Your task to perform on an android device: toggle airplane mode Image 0: 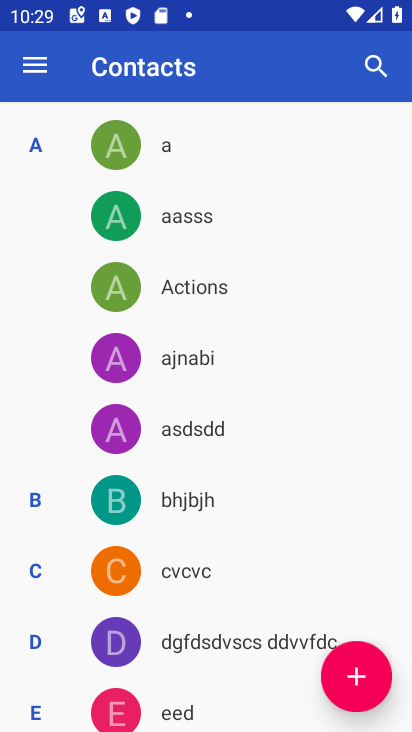
Step 0: press home button
Your task to perform on an android device: toggle airplane mode Image 1: 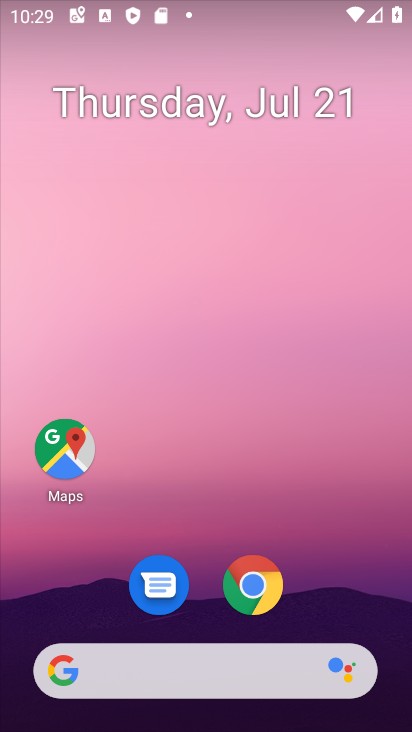
Step 1: drag from (253, 503) to (329, 9)
Your task to perform on an android device: toggle airplane mode Image 2: 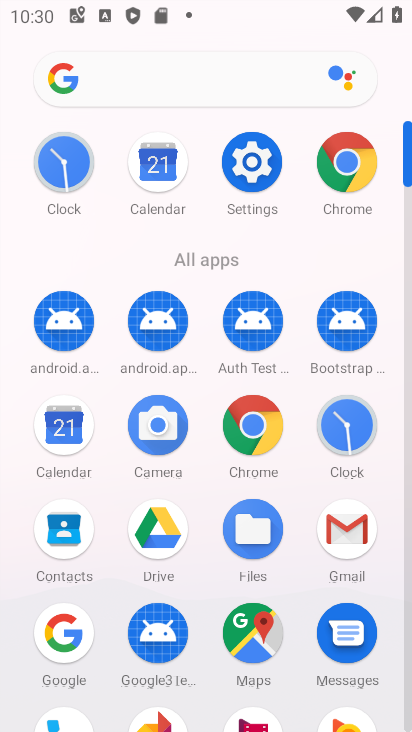
Step 2: click (248, 162)
Your task to perform on an android device: toggle airplane mode Image 3: 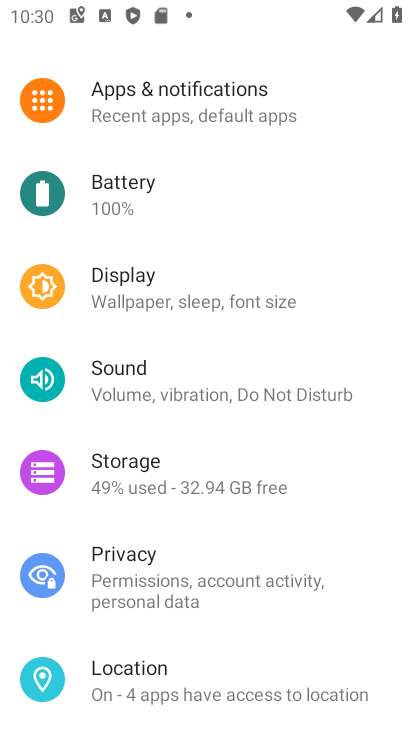
Step 3: drag from (235, 204) to (226, 652)
Your task to perform on an android device: toggle airplane mode Image 4: 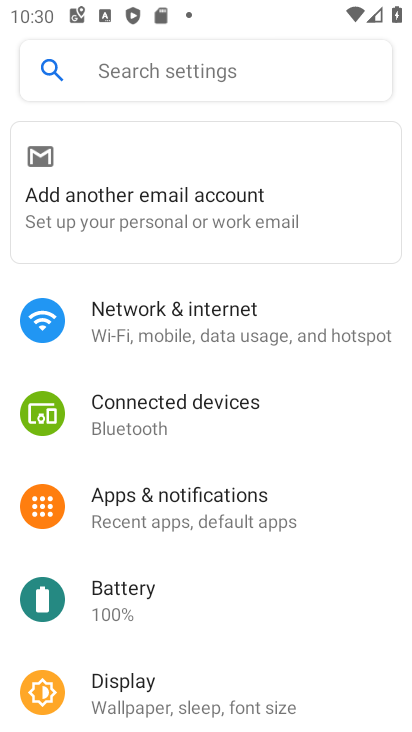
Step 4: click (246, 335)
Your task to perform on an android device: toggle airplane mode Image 5: 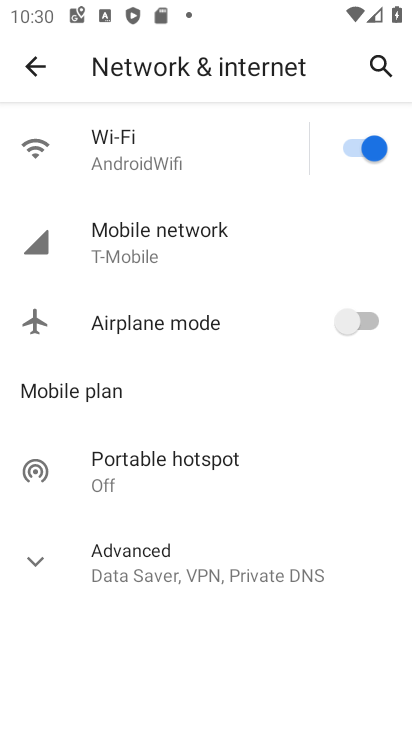
Step 5: click (354, 317)
Your task to perform on an android device: toggle airplane mode Image 6: 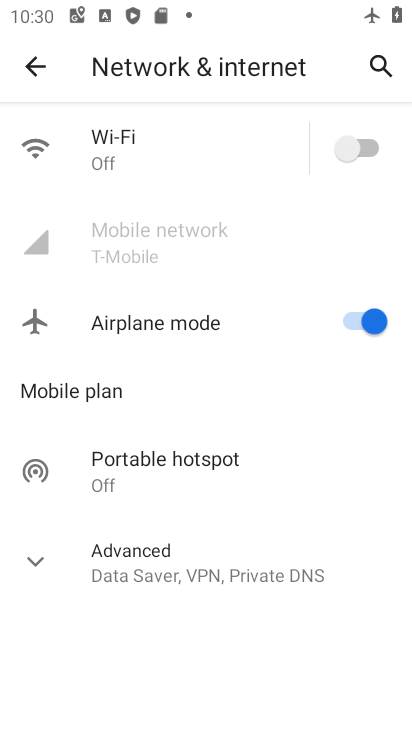
Step 6: task complete